Your task to perform on an android device: Open the web browser Image 0: 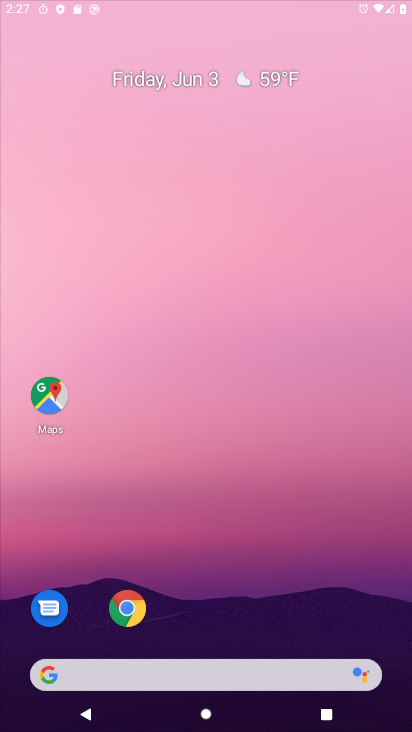
Step 0: click (133, 610)
Your task to perform on an android device: Open the web browser Image 1: 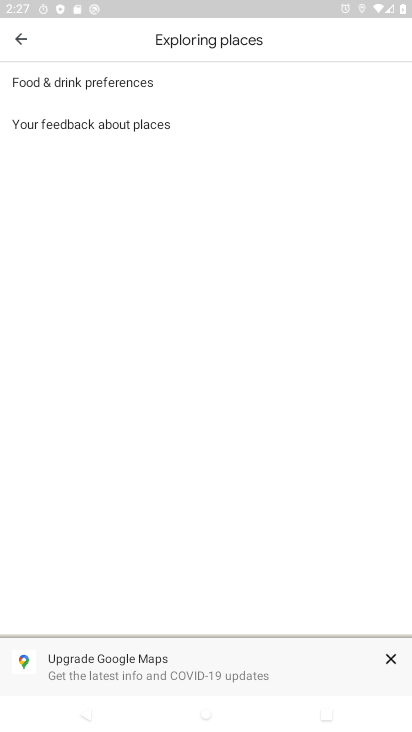
Step 1: press home button
Your task to perform on an android device: Open the web browser Image 2: 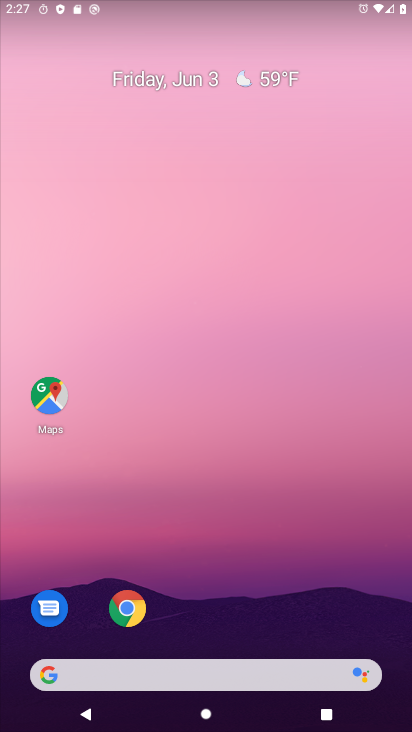
Step 2: click (135, 598)
Your task to perform on an android device: Open the web browser Image 3: 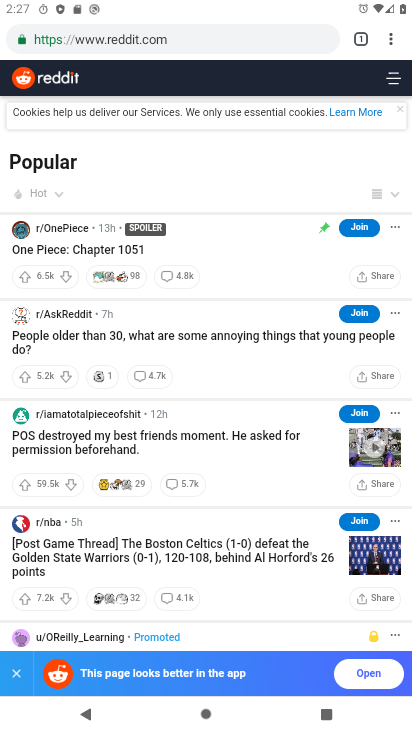
Step 3: task complete